Your task to perform on an android device: change text size in settings app Image 0: 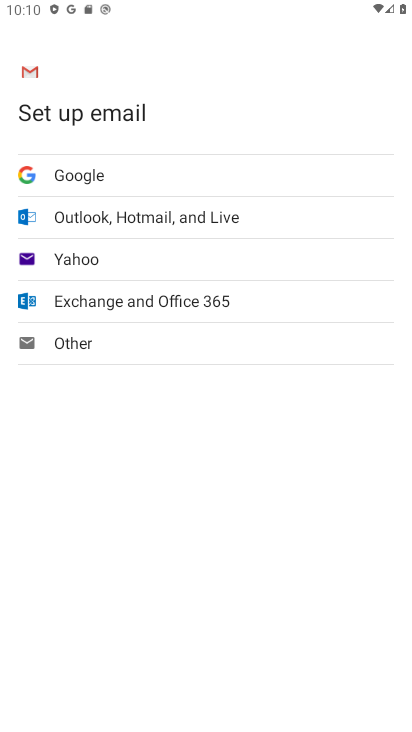
Step 0: press home button
Your task to perform on an android device: change text size in settings app Image 1: 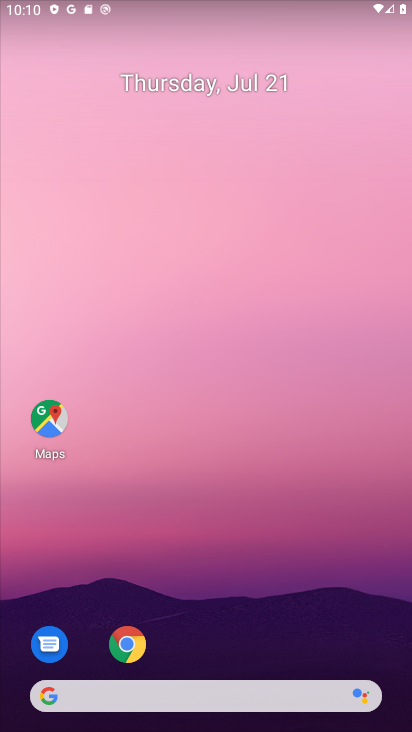
Step 1: drag from (220, 660) to (231, 24)
Your task to perform on an android device: change text size in settings app Image 2: 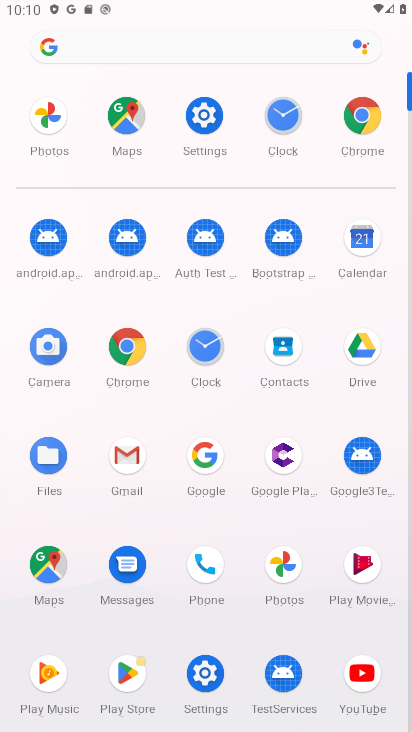
Step 2: click (203, 674)
Your task to perform on an android device: change text size in settings app Image 3: 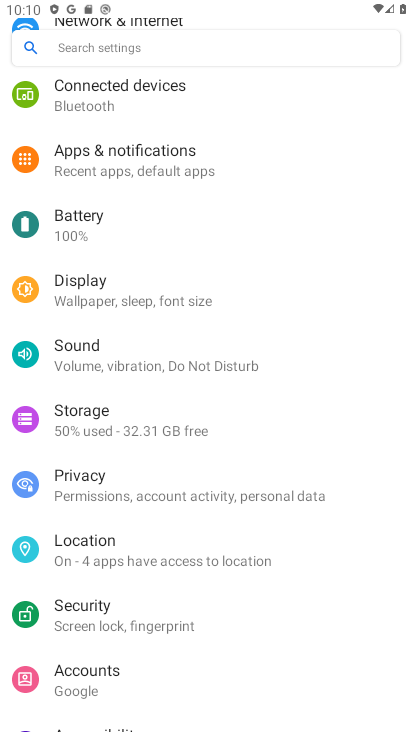
Step 3: click (103, 278)
Your task to perform on an android device: change text size in settings app Image 4: 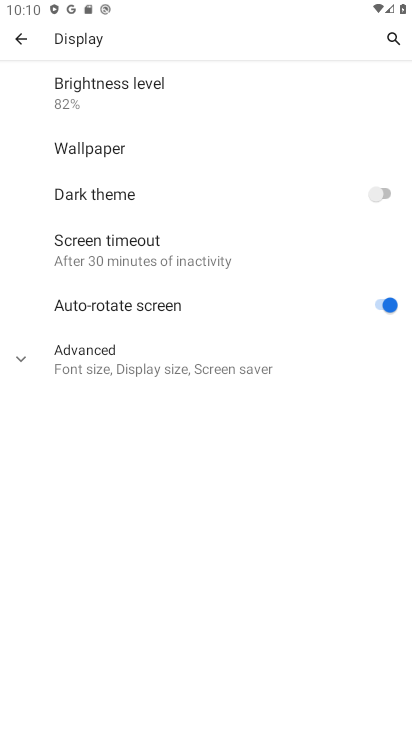
Step 4: click (26, 349)
Your task to perform on an android device: change text size in settings app Image 5: 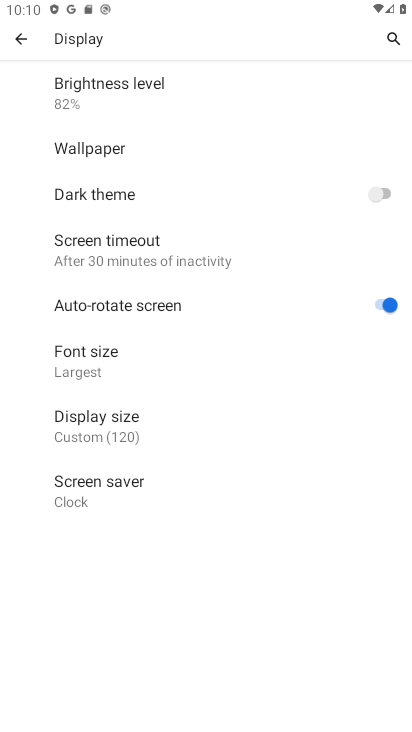
Step 5: click (85, 367)
Your task to perform on an android device: change text size in settings app Image 6: 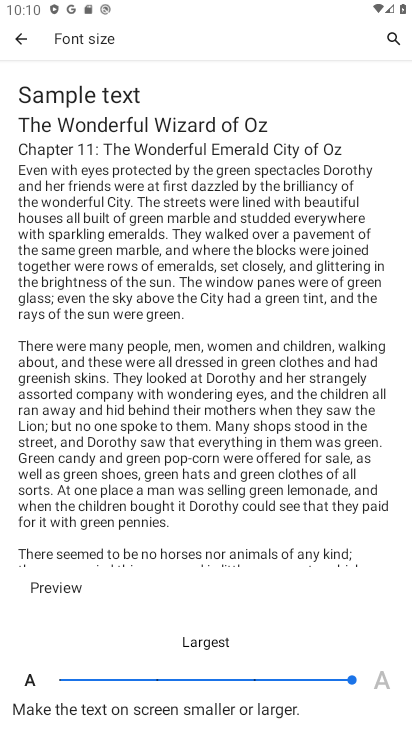
Step 6: click (283, 680)
Your task to perform on an android device: change text size in settings app Image 7: 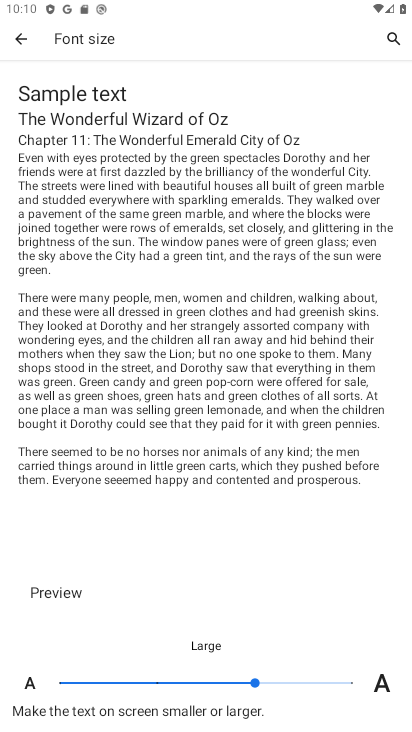
Step 7: task complete